Your task to perform on an android device: check out phone information Image 0: 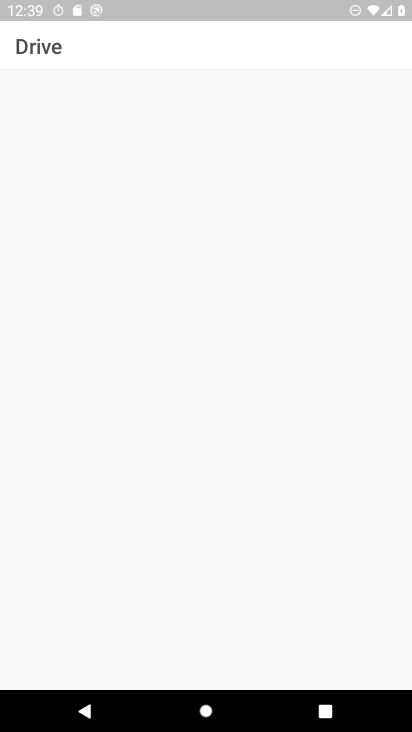
Step 0: press home button
Your task to perform on an android device: check out phone information Image 1: 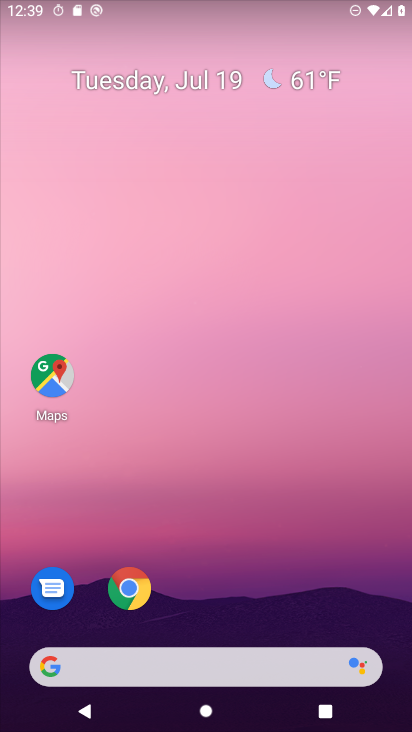
Step 1: drag from (307, 535) to (323, 29)
Your task to perform on an android device: check out phone information Image 2: 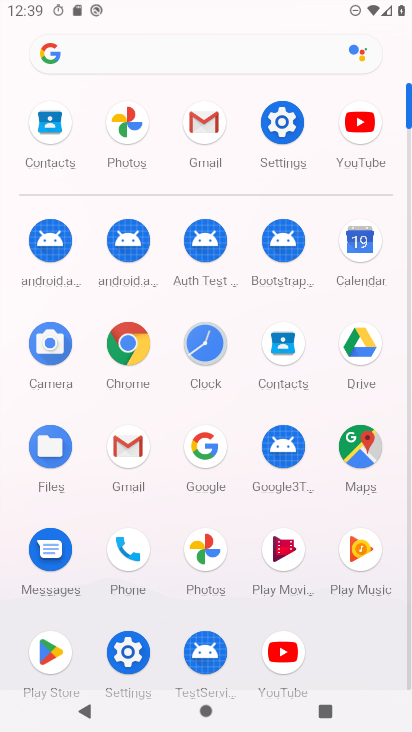
Step 2: click (275, 136)
Your task to perform on an android device: check out phone information Image 3: 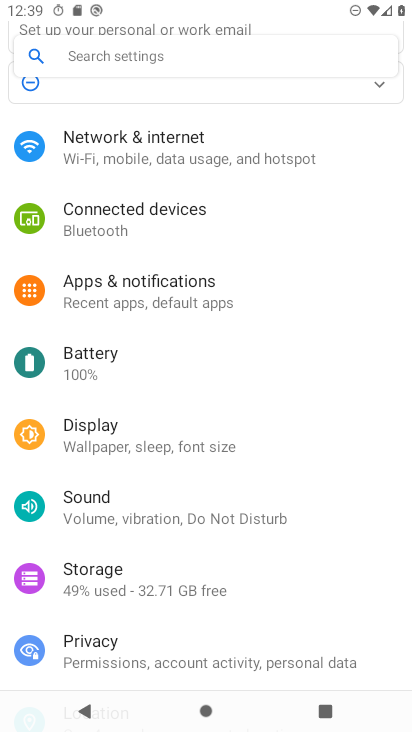
Step 3: drag from (157, 550) to (150, 137)
Your task to perform on an android device: check out phone information Image 4: 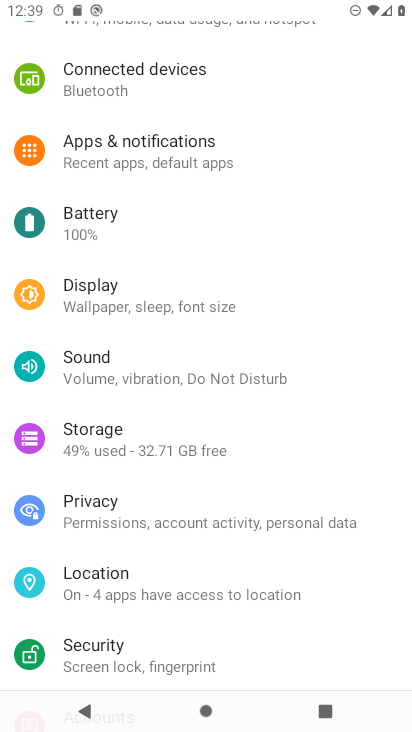
Step 4: drag from (178, 554) to (170, 198)
Your task to perform on an android device: check out phone information Image 5: 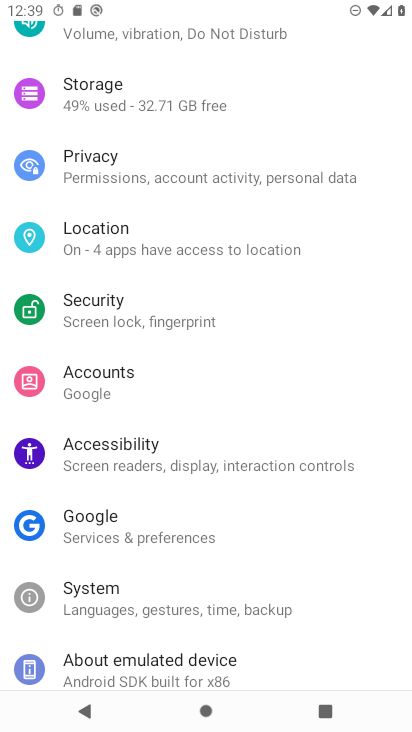
Step 5: click (131, 673)
Your task to perform on an android device: check out phone information Image 6: 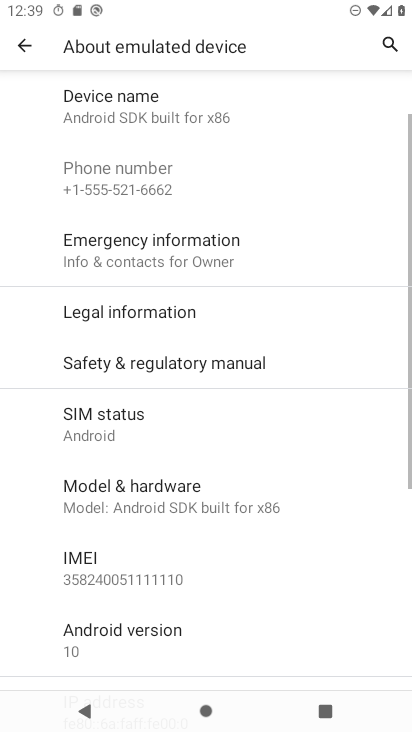
Step 6: task complete